Your task to perform on an android device: Search for asus zenbook on bestbuy, select the first entry, add it to the cart, then select checkout. Image 0: 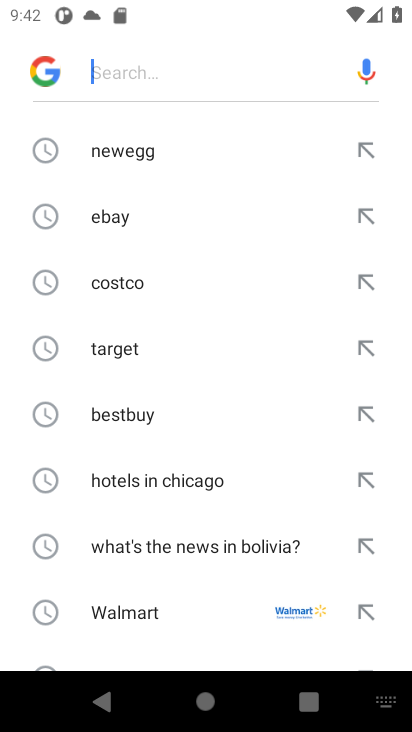
Step 0: click (132, 418)
Your task to perform on an android device: Search for asus zenbook on bestbuy, select the first entry, add it to the cart, then select checkout. Image 1: 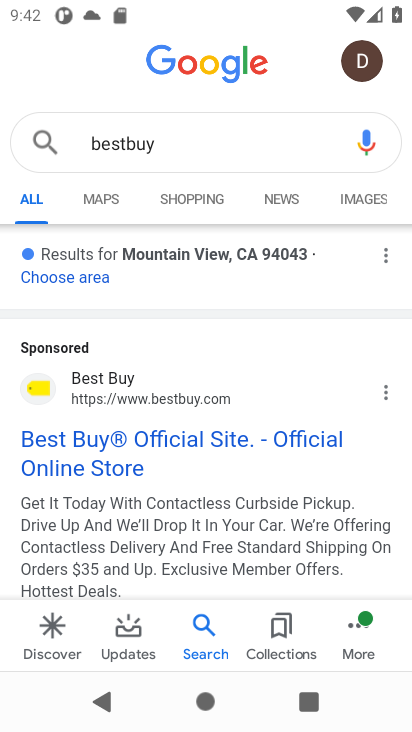
Step 1: click (108, 455)
Your task to perform on an android device: Search for asus zenbook on bestbuy, select the first entry, add it to the cart, then select checkout. Image 2: 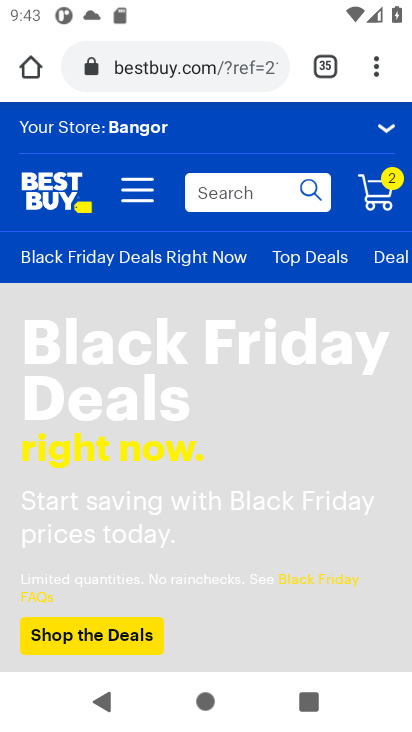
Step 2: click (201, 190)
Your task to perform on an android device: Search for asus zenbook on bestbuy, select the first entry, add it to the cart, then select checkout. Image 3: 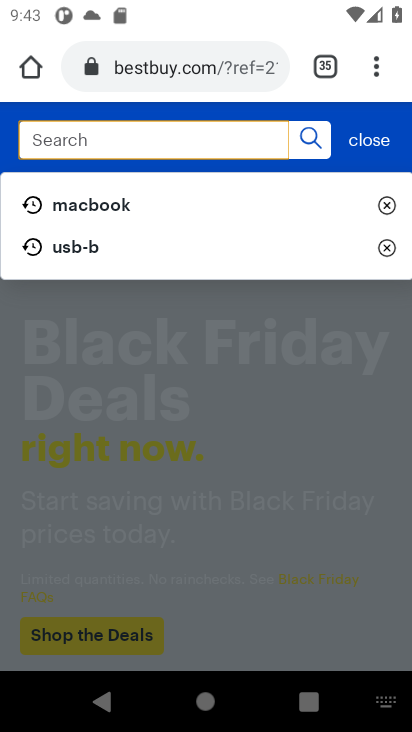
Step 3: type "asus zenbook"
Your task to perform on an android device: Search for asus zenbook on bestbuy, select the first entry, add it to the cart, then select checkout. Image 4: 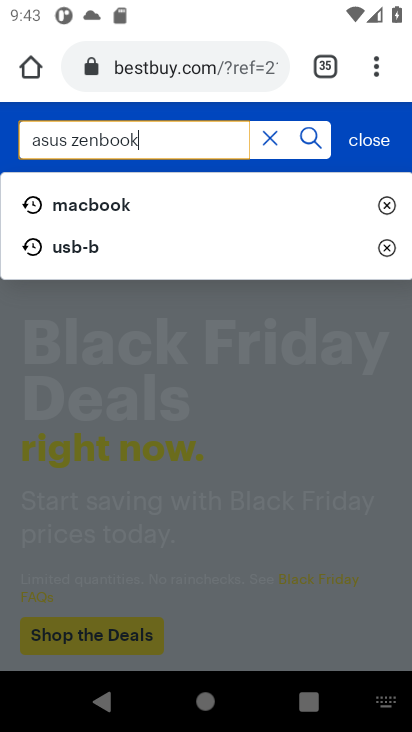
Step 4: press enter
Your task to perform on an android device: Search for asus zenbook on bestbuy, select the first entry, add it to the cart, then select checkout. Image 5: 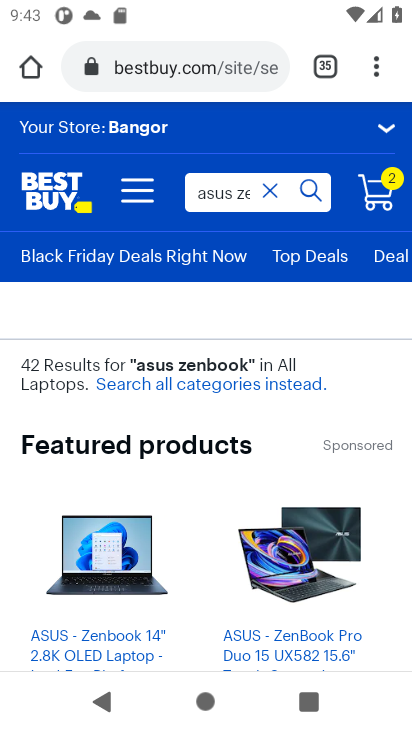
Step 5: drag from (180, 584) to (204, 398)
Your task to perform on an android device: Search for asus zenbook on bestbuy, select the first entry, add it to the cart, then select checkout. Image 6: 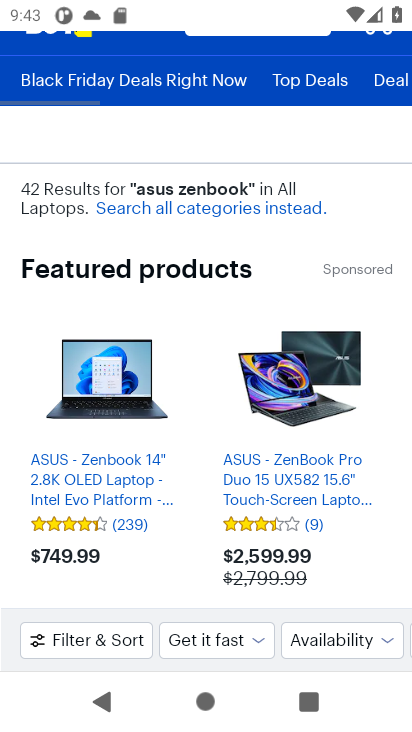
Step 6: click (99, 487)
Your task to perform on an android device: Search for asus zenbook on bestbuy, select the first entry, add it to the cart, then select checkout. Image 7: 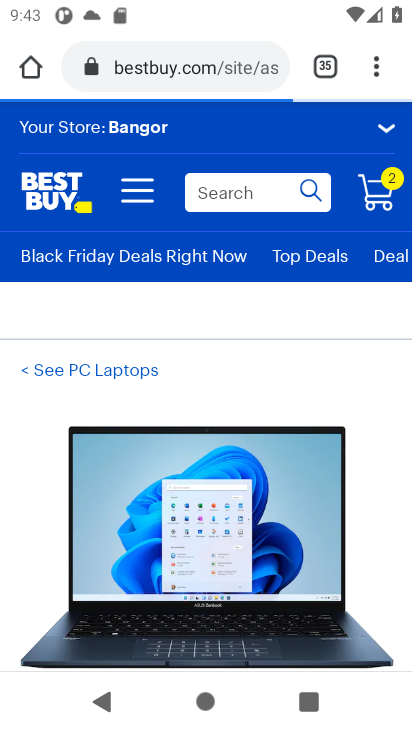
Step 7: drag from (223, 574) to (232, 337)
Your task to perform on an android device: Search for asus zenbook on bestbuy, select the first entry, add it to the cart, then select checkout. Image 8: 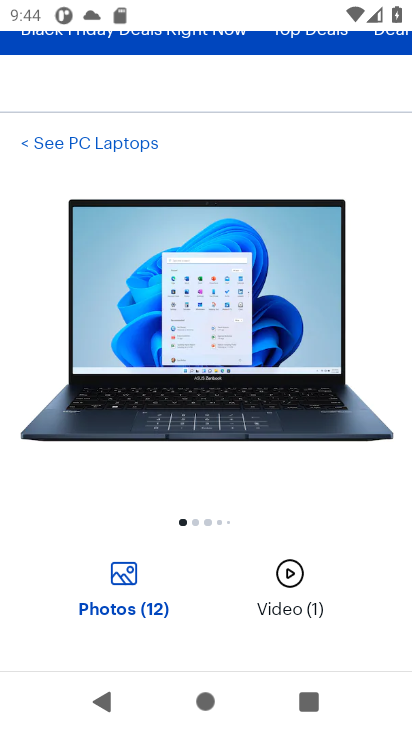
Step 8: drag from (303, 545) to (286, 253)
Your task to perform on an android device: Search for asus zenbook on bestbuy, select the first entry, add it to the cart, then select checkout. Image 9: 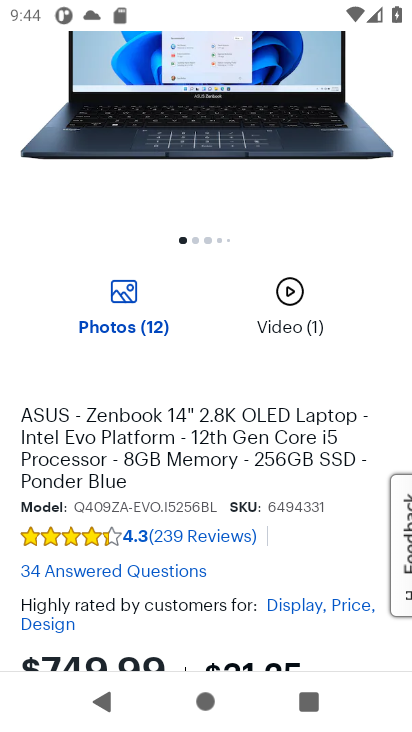
Step 9: drag from (240, 551) to (207, 246)
Your task to perform on an android device: Search for asus zenbook on bestbuy, select the first entry, add it to the cart, then select checkout. Image 10: 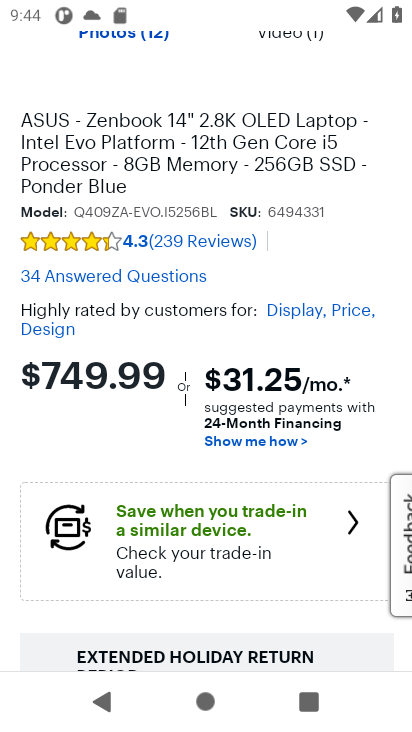
Step 10: drag from (201, 554) to (197, 233)
Your task to perform on an android device: Search for asus zenbook on bestbuy, select the first entry, add it to the cart, then select checkout. Image 11: 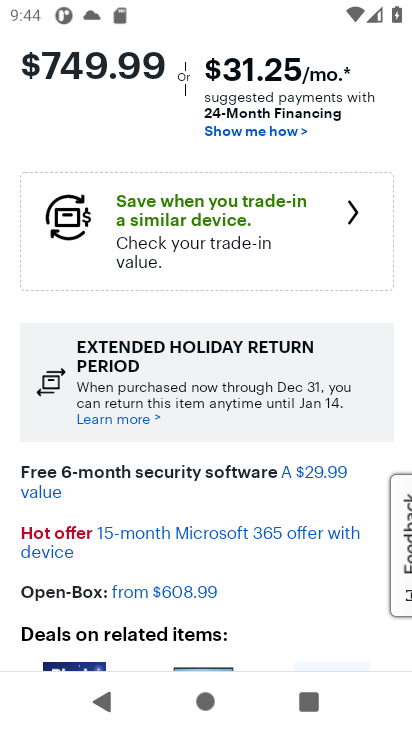
Step 11: drag from (187, 592) to (194, 249)
Your task to perform on an android device: Search for asus zenbook on bestbuy, select the first entry, add it to the cart, then select checkout. Image 12: 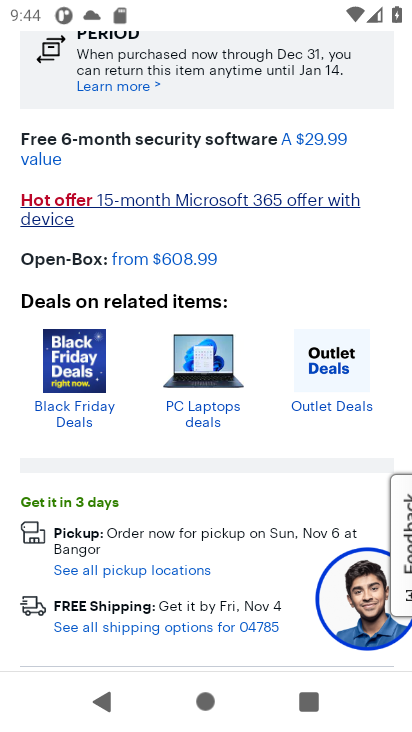
Step 12: drag from (196, 578) to (217, 235)
Your task to perform on an android device: Search for asus zenbook on bestbuy, select the first entry, add it to the cart, then select checkout. Image 13: 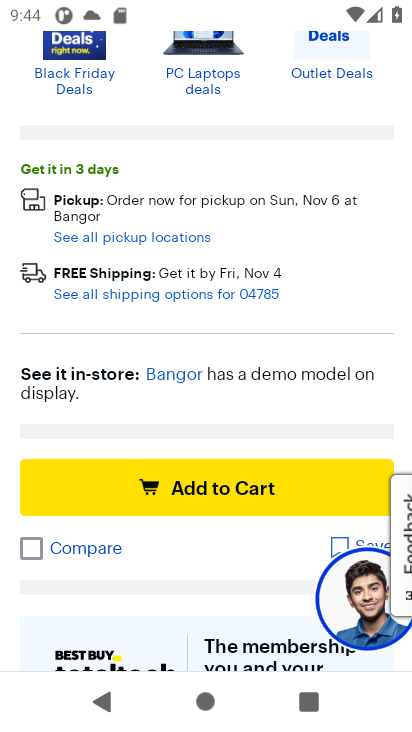
Step 13: click (186, 493)
Your task to perform on an android device: Search for asus zenbook on bestbuy, select the first entry, add it to the cart, then select checkout. Image 14: 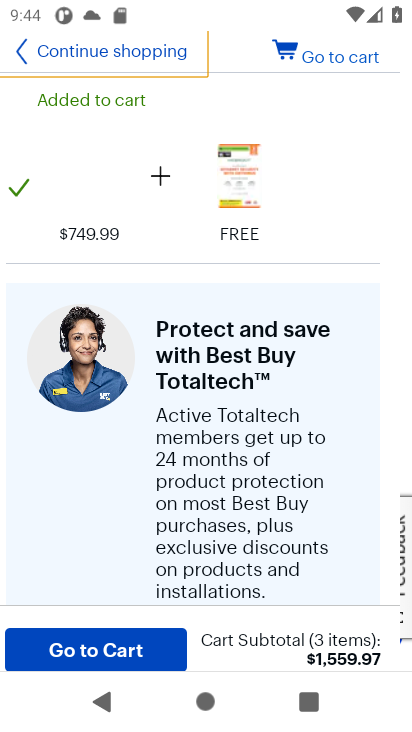
Step 14: click (81, 652)
Your task to perform on an android device: Search for asus zenbook on bestbuy, select the first entry, add it to the cart, then select checkout. Image 15: 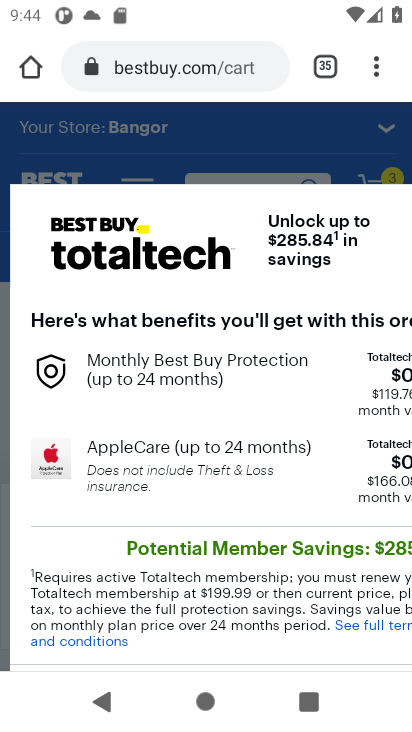
Step 15: drag from (338, 403) to (244, 448)
Your task to perform on an android device: Search for asus zenbook on bestbuy, select the first entry, add it to the cart, then select checkout. Image 16: 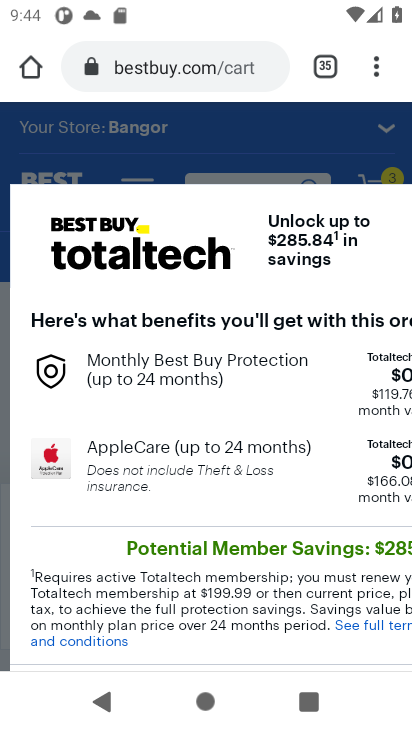
Step 16: drag from (321, 441) to (2, 431)
Your task to perform on an android device: Search for asus zenbook on bestbuy, select the first entry, add it to the cart, then select checkout. Image 17: 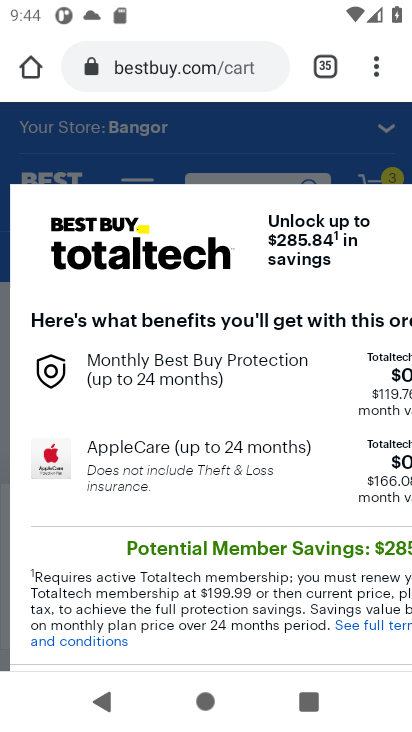
Step 17: drag from (188, 535) to (164, 188)
Your task to perform on an android device: Search for asus zenbook on bestbuy, select the first entry, add it to the cart, then select checkout. Image 18: 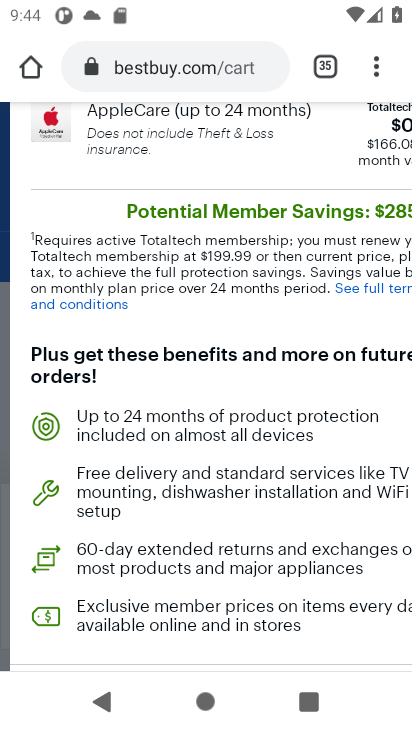
Step 18: drag from (310, 558) to (296, 196)
Your task to perform on an android device: Search for asus zenbook on bestbuy, select the first entry, add it to the cart, then select checkout. Image 19: 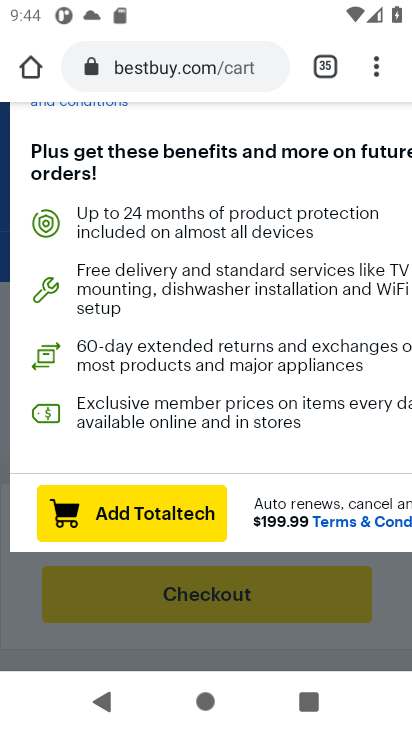
Step 19: click (232, 608)
Your task to perform on an android device: Search for asus zenbook on bestbuy, select the first entry, add it to the cart, then select checkout. Image 20: 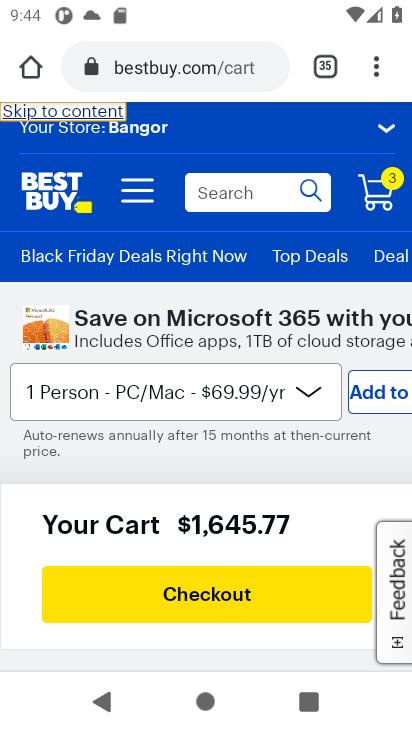
Step 20: click (229, 587)
Your task to perform on an android device: Search for asus zenbook on bestbuy, select the first entry, add it to the cart, then select checkout. Image 21: 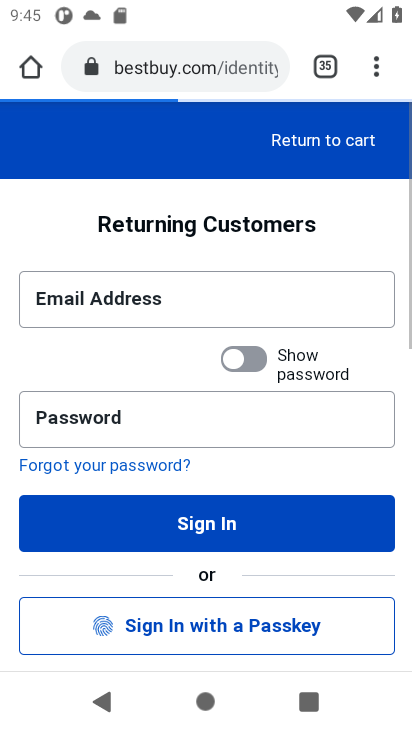
Step 21: task complete